Your task to perform on an android device: toggle sleep mode Image 0: 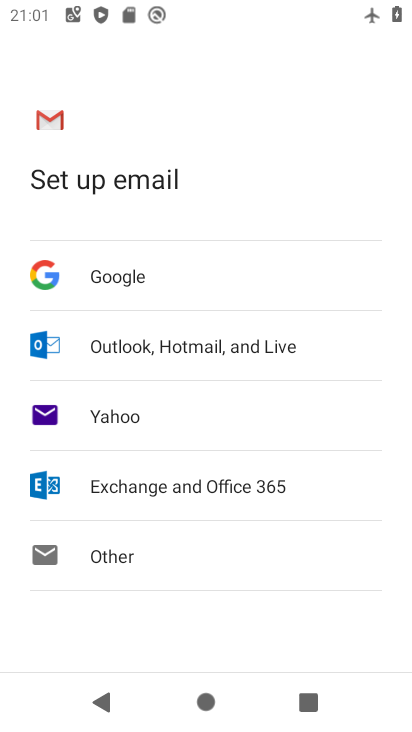
Step 0: press home button
Your task to perform on an android device: toggle sleep mode Image 1: 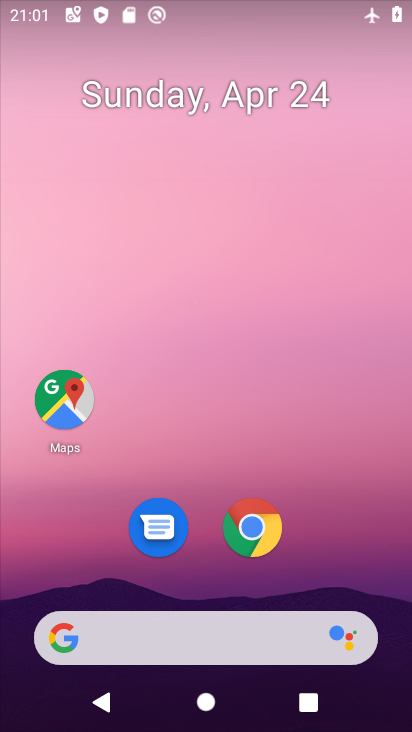
Step 1: drag from (374, 603) to (385, 41)
Your task to perform on an android device: toggle sleep mode Image 2: 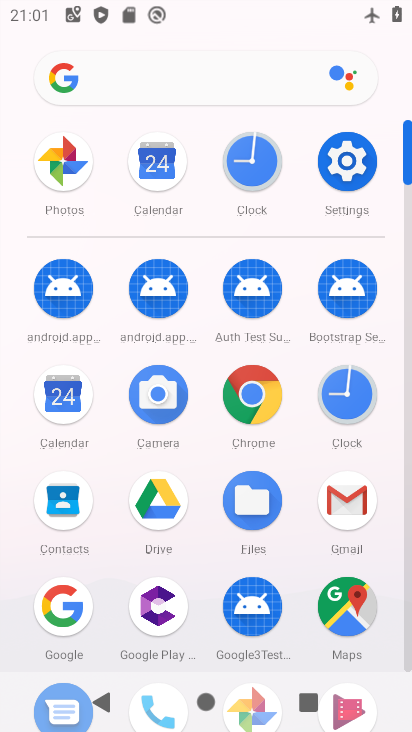
Step 2: click (347, 175)
Your task to perform on an android device: toggle sleep mode Image 3: 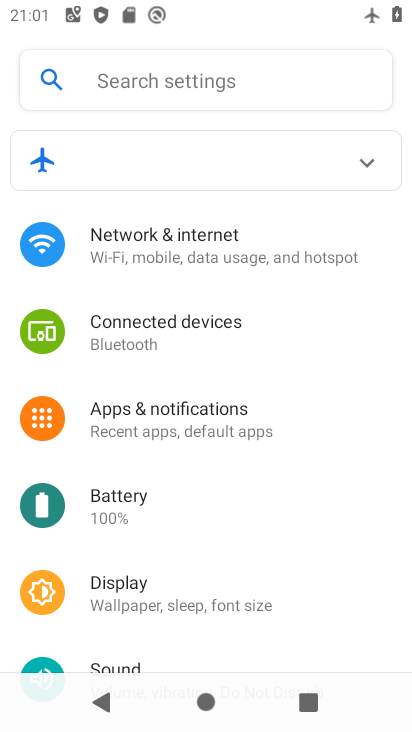
Step 3: click (123, 607)
Your task to perform on an android device: toggle sleep mode Image 4: 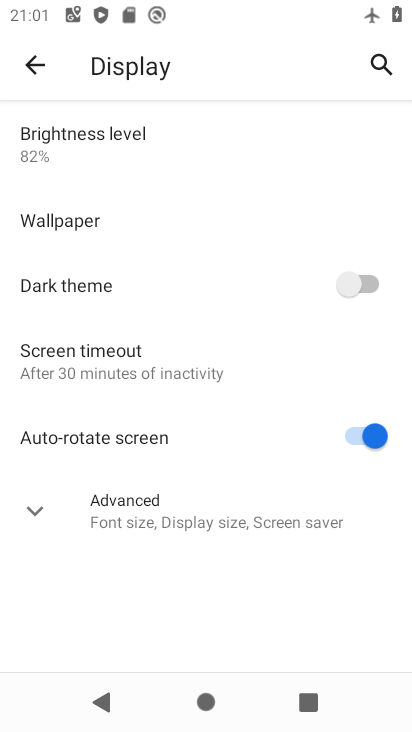
Step 4: click (35, 525)
Your task to perform on an android device: toggle sleep mode Image 5: 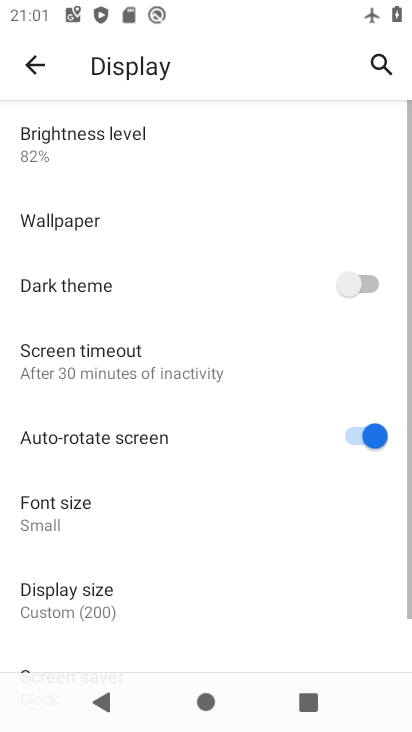
Step 5: task complete